Your task to perform on an android device: open sync settings in chrome Image 0: 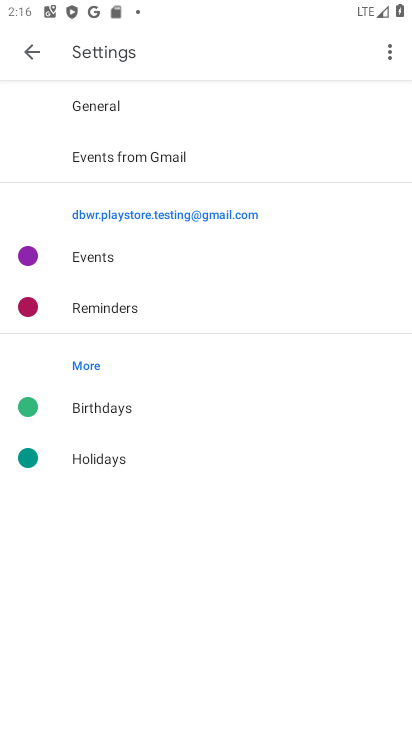
Step 0: press home button
Your task to perform on an android device: open sync settings in chrome Image 1: 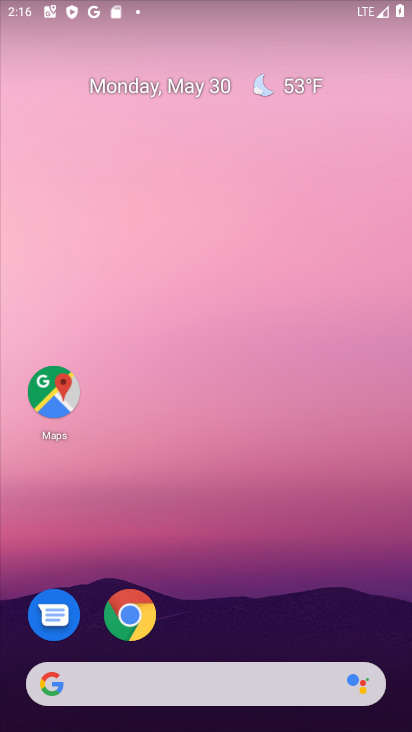
Step 1: click (138, 599)
Your task to perform on an android device: open sync settings in chrome Image 2: 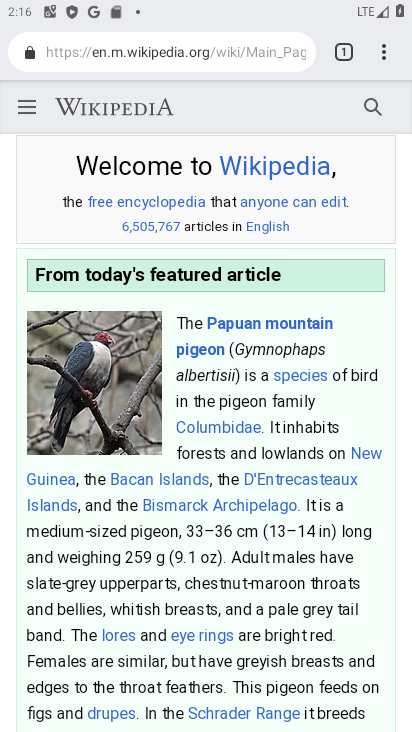
Step 2: click (386, 49)
Your task to perform on an android device: open sync settings in chrome Image 3: 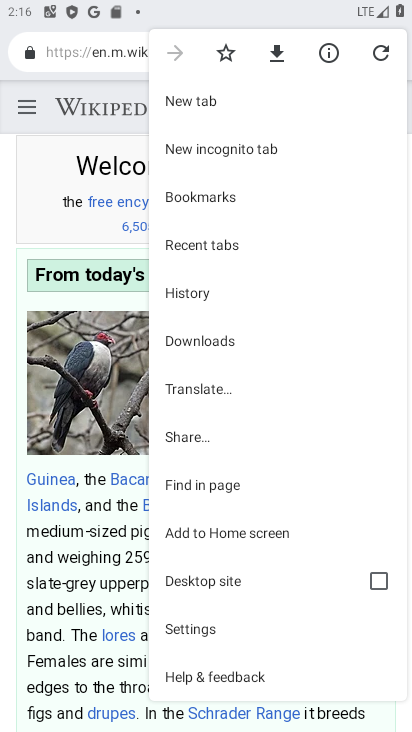
Step 3: click (197, 639)
Your task to perform on an android device: open sync settings in chrome Image 4: 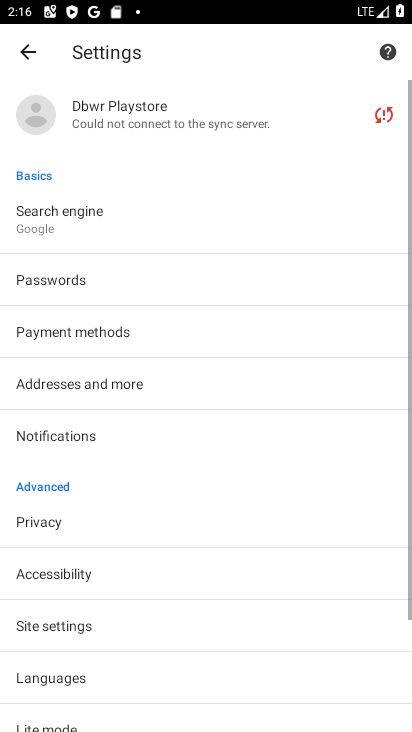
Step 4: click (113, 111)
Your task to perform on an android device: open sync settings in chrome Image 5: 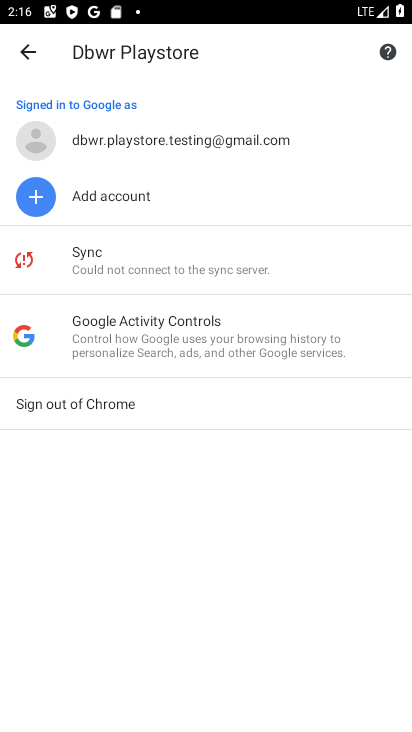
Step 5: click (110, 254)
Your task to perform on an android device: open sync settings in chrome Image 6: 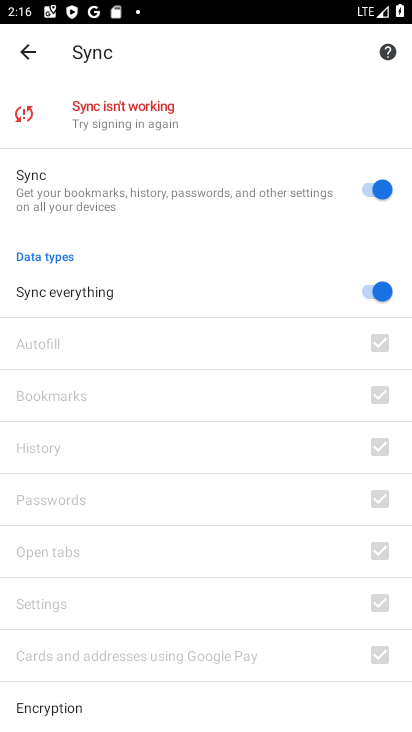
Step 6: task complete